Your task to perform on an android device: turn off location history Image 0: 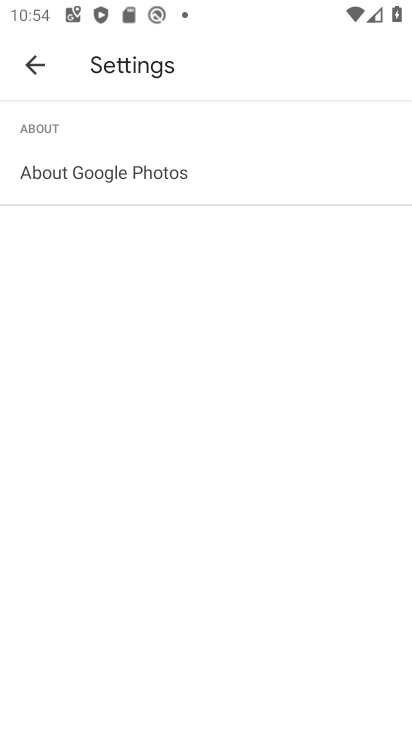
Step 0: press home button
Your task to perform on an android device: turn off location history Image 1: 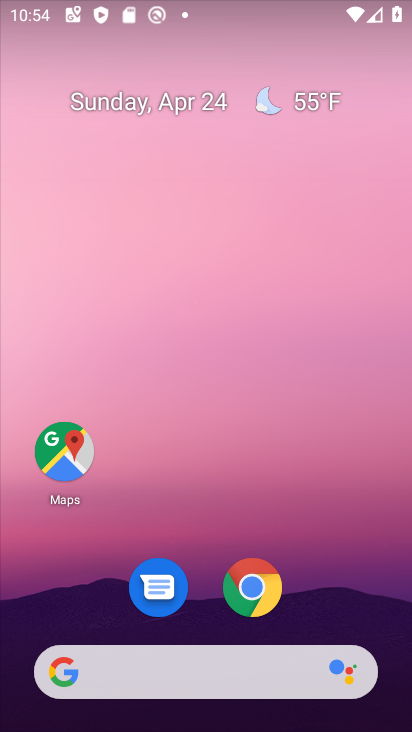
Step 1: drag from (331, 623) to (373, 171)
Your task to perform on an android device: turn off location history Image 2: 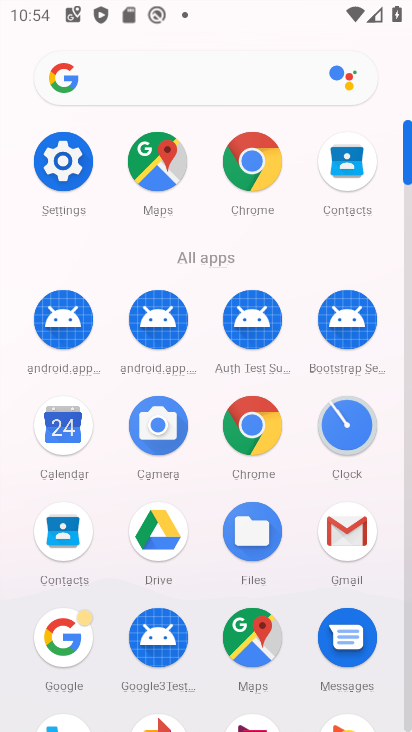
Step 2: click (71, 159)
Your task to perform on an android device: turn off location history Image 3: 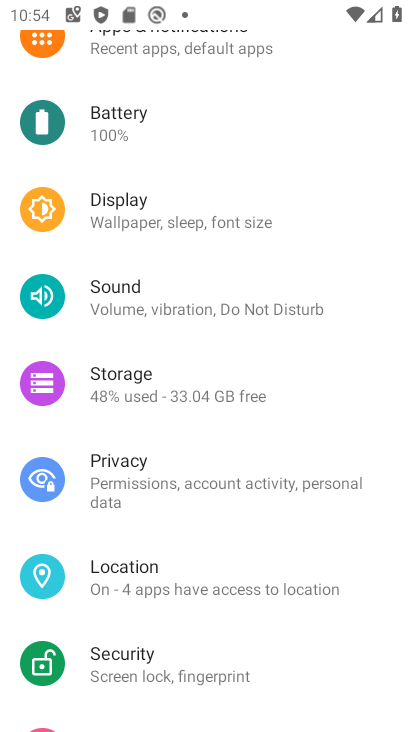
Step 3: click (142, 575)
Your task to perform on an android device: turn off location history Image 4: 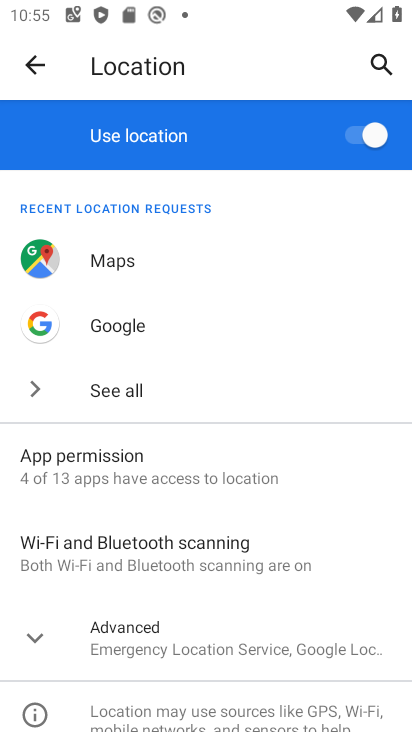
Step 4: drag from (255, 631) to (291, 221)
Your task to perform on an android device: turn off location history Image 5: 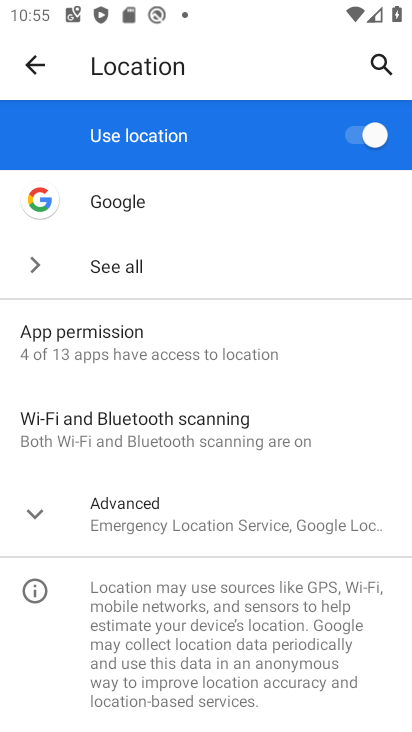
Step 5: click (185, 526)
Your task to perform on an android device: turn off location history Image 6: 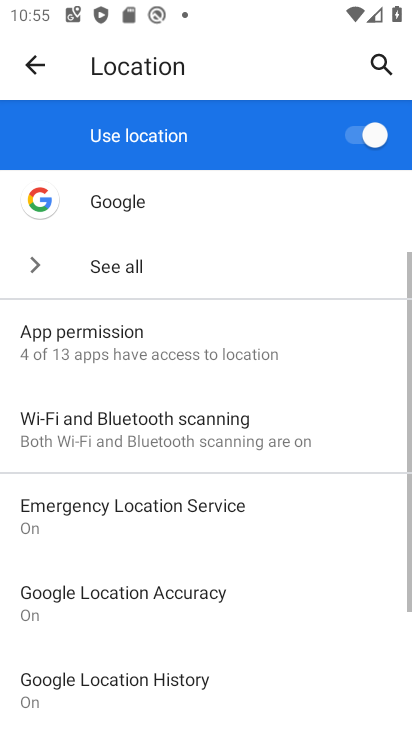
Step 6: drag from (260, 521) to (311, 231)
Your task to perform on an android device: turn off location history Image 7: 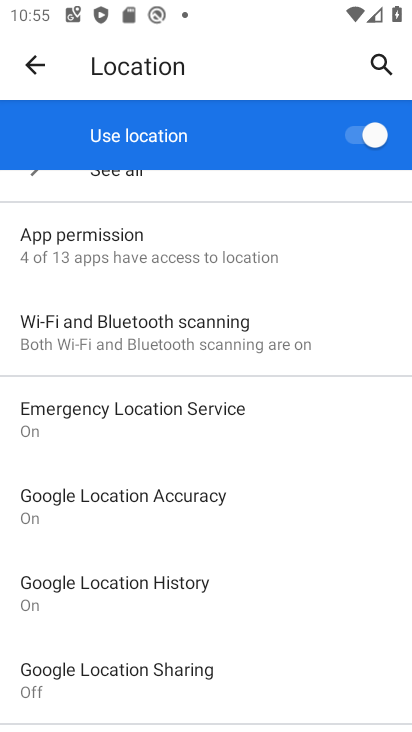
Step 7: click (145, 509)
Your task to perform on an android device: turn off location history Image 8: 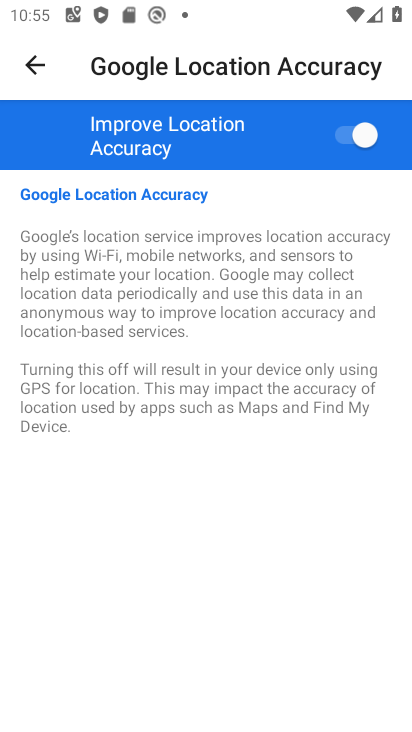
Step 8: press back button
Your task to perform on an android device: turn off location history Image 9: 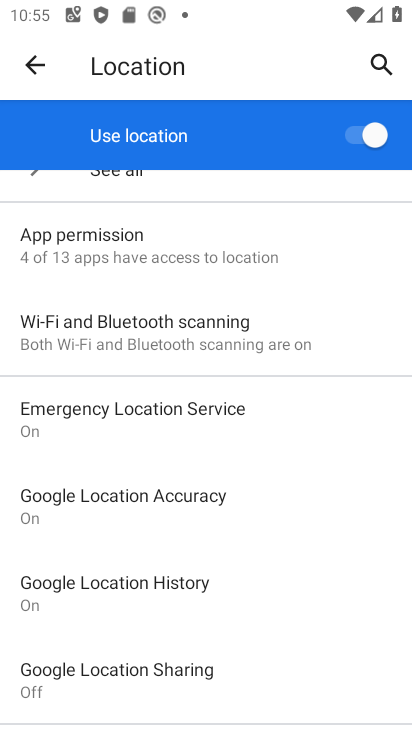
Step 9: click (163, 586)
Your task to perform on an android device: turn off location history Image 10: 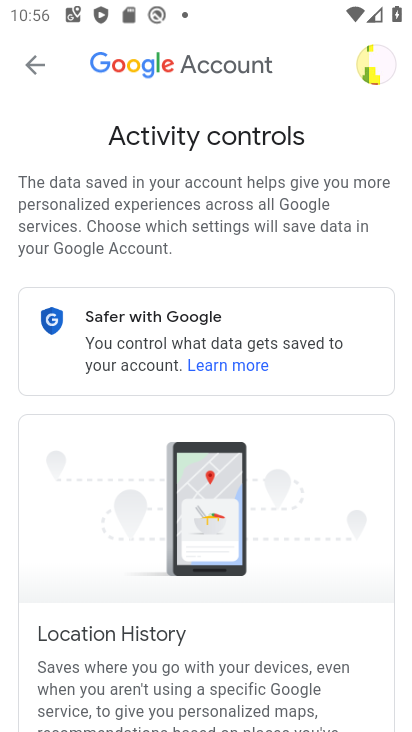
Step 10: drag from (296, 565) to (377, 94)
Your task to perform on an android device: turn off location history Image 11: 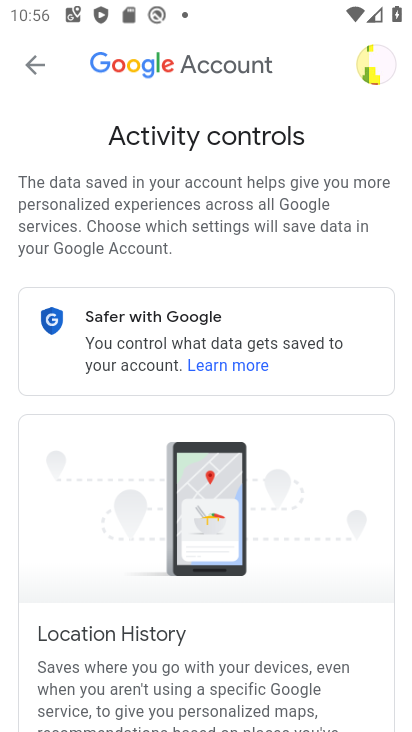
Step 11: drag from (300, 532) to (312, 54)
Your task to perform on an android device: turn off location history Image 12: 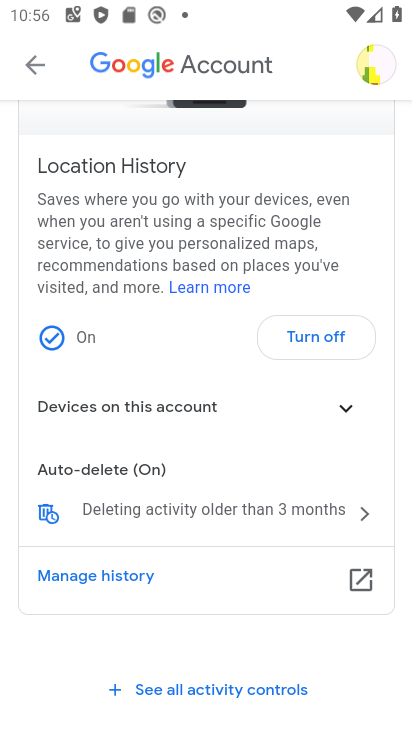
Step 12: click (328, 333)
Your task to perform on an android device: turn off location history Image 13: 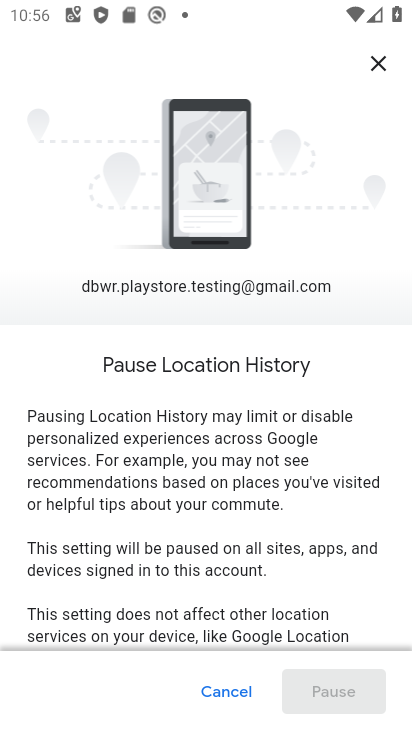
Step 13: drag from (296, 440) to (319, 45)
Your task to perform on an android device: turn off location history Image 14: 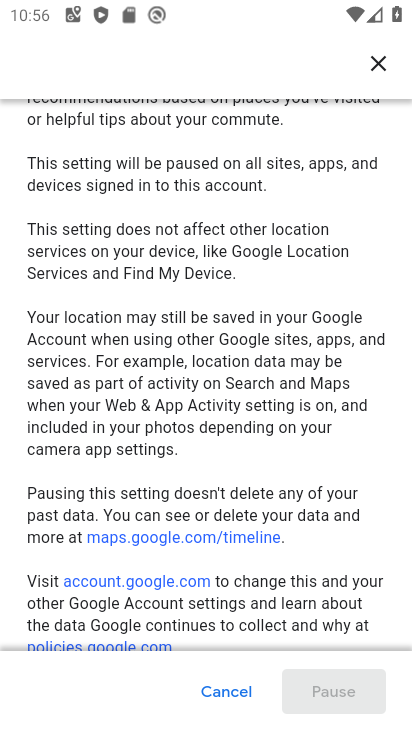
Step 14: drag from (281, 452) to (262, 76)
Your task to perform on an android device: turn off location history Image 15: 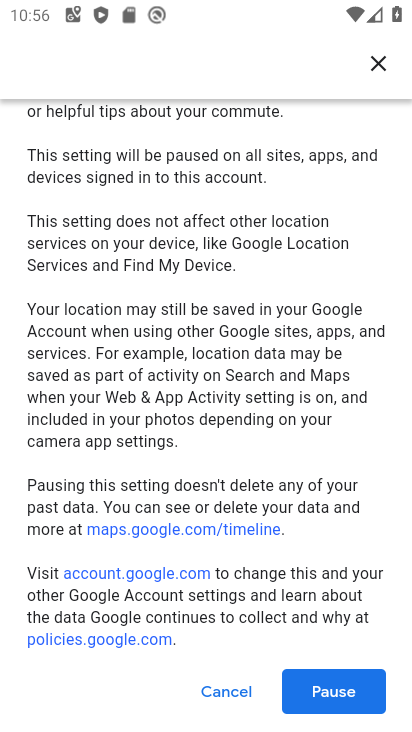
Step 15: click (337, 682)
Your task to perform on an android device: turn off location history Image 16: 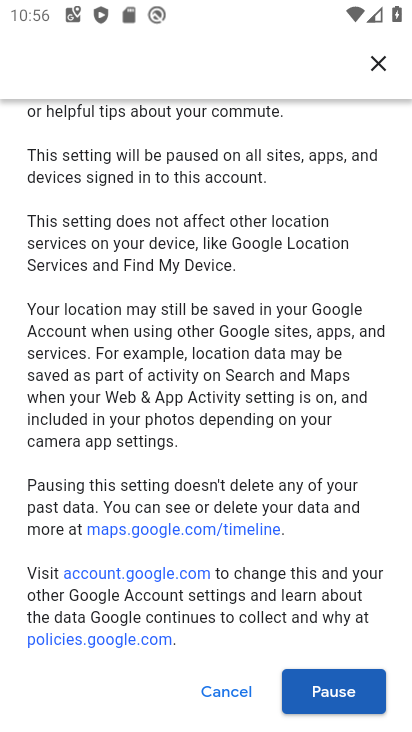
Step 16: click (331, 693)
Your task to perform on an android device: turn off location history Image 17: 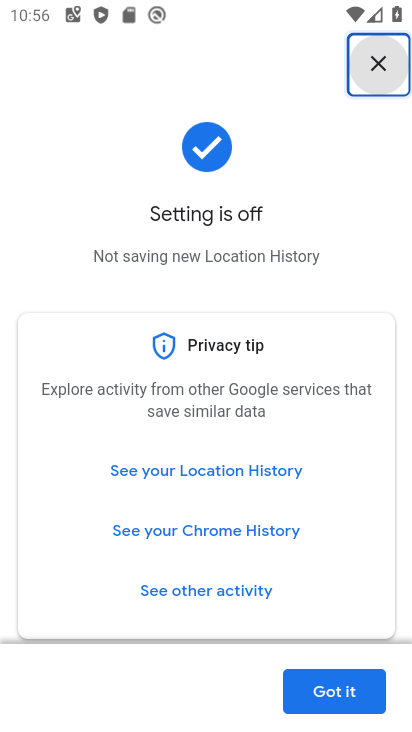
Step 17: task complete